Your task to perform on an android device: turn on translation in the chrome app Image 0: 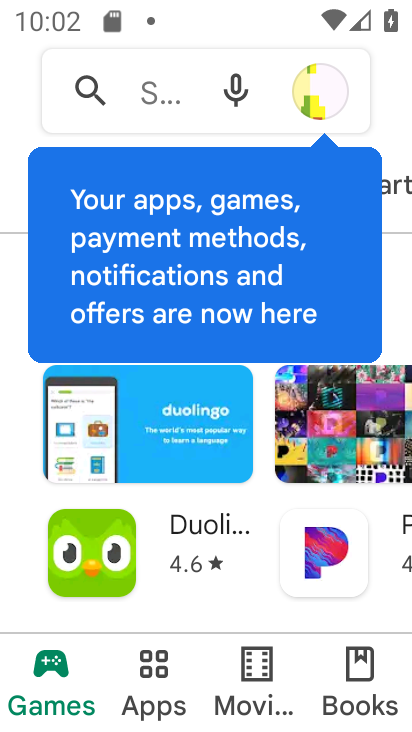
Step 0: press home button
Your task to perform on an android device: turn on translation in the chrome app Image 1: 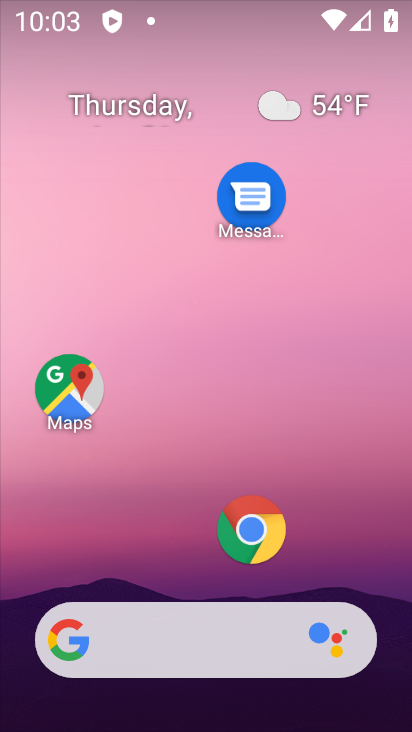
Step 1: click (254, 529)
Your task to perform on an android device: turn on translation in the chrome app Image 2: 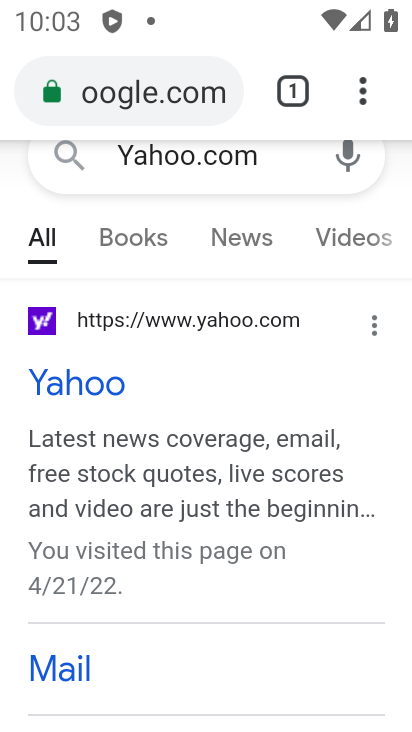
Step 2: click (371, 95)
Your task to perform on an android device: turn on translation in the chrome app Image 3: 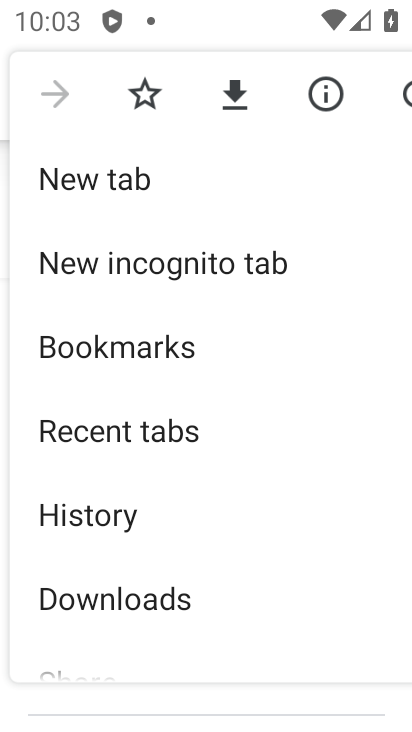
Step 3: drag from (192, 492) to (224, 294)
Your task to perform on an android device: turn on translation in the chrome app Image 4: 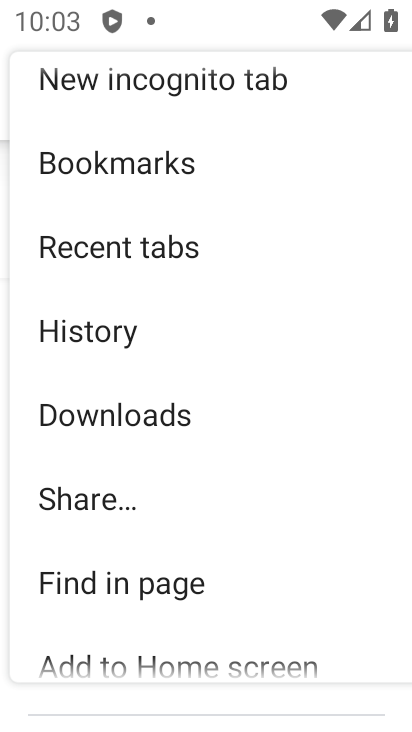
Step 4: drag from (184, 468) to (215, 376)
Your task to perform on an android device: turn on translation in the chrome app Image 5: 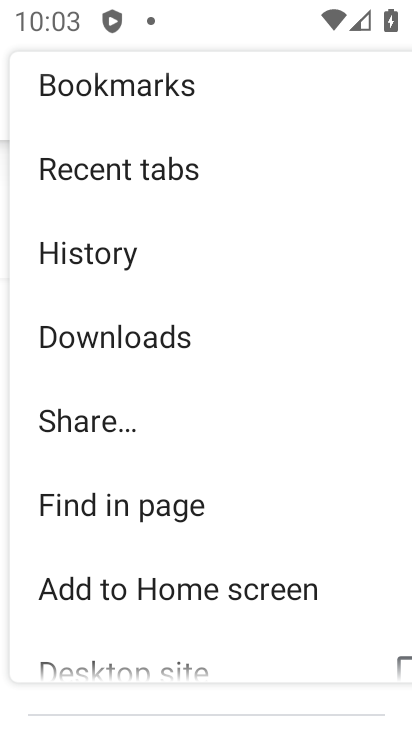
Step 5: drag from (165, 466) to (222, 389)
Your task to perform on an android device: turn on translation in the chrome app Image 6: 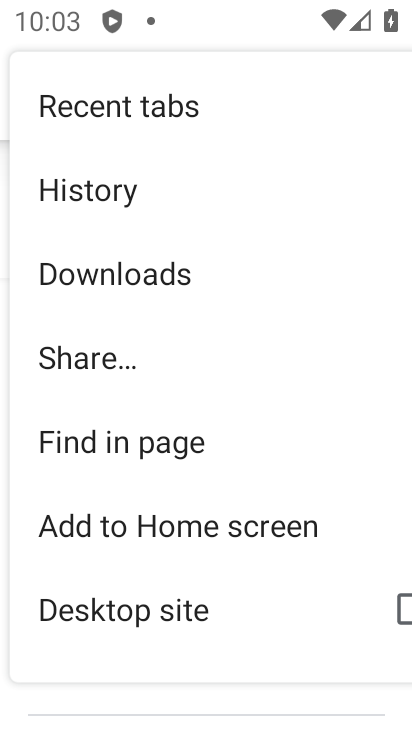
Step 6: drag from (188, 475) to (239, 386)
Your task to perform on an android device: turn on translation in the chrome app Image 7: 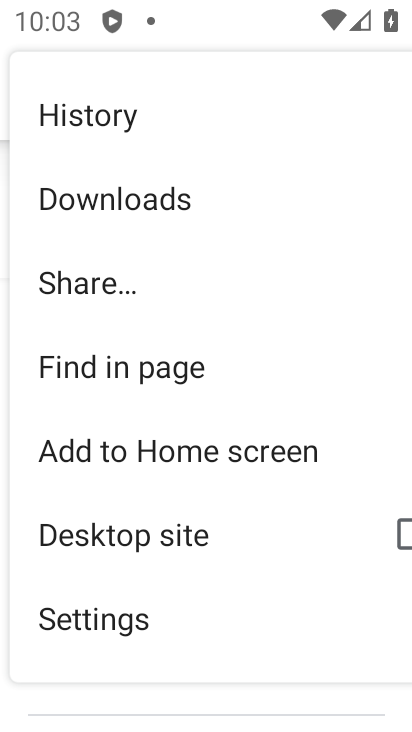
Step 7: click (117, 619)
Your task to perform on an android device: turn on translation in the chrome app Image 8: 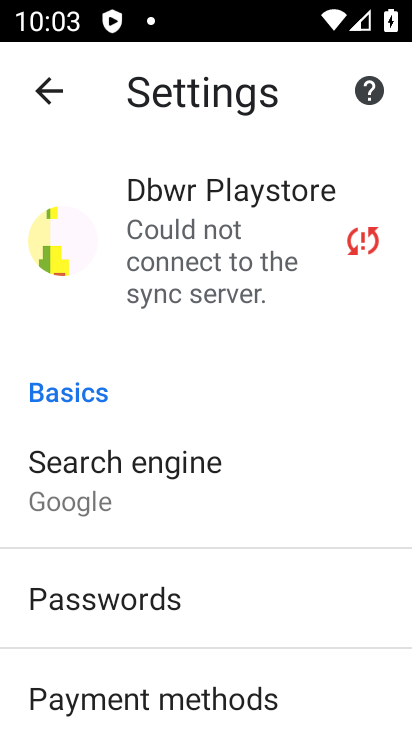
Step 8: drag from (234, 521) to (271, 423)
Your task to perform on an android device: turn on translation in the chrome app Image 9: 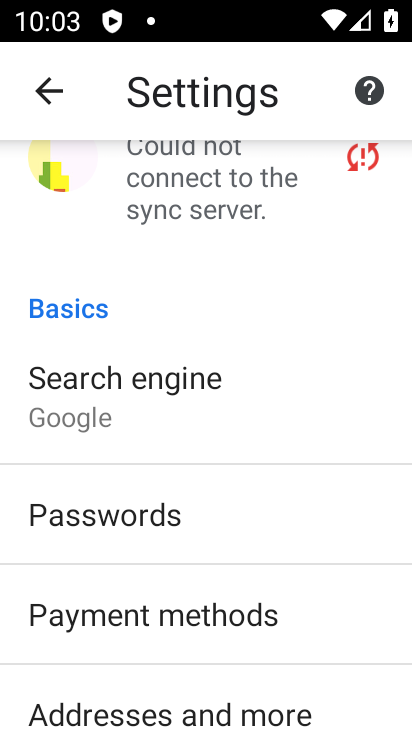
Step 9: drag from (232, 517) to (269, 447)
Your task to perform on an android device: turn on translation in the chrome app Image 10: 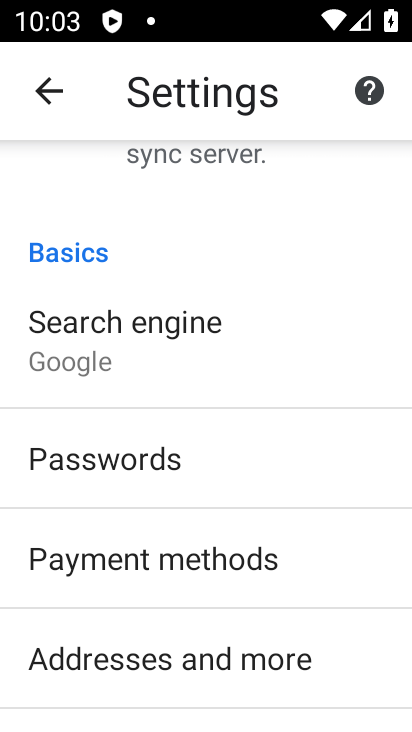
Step 10: drag from (201, 525) to (265, 444)
Your task to perform on an android device: turn on translation in the chrome app Image 11: 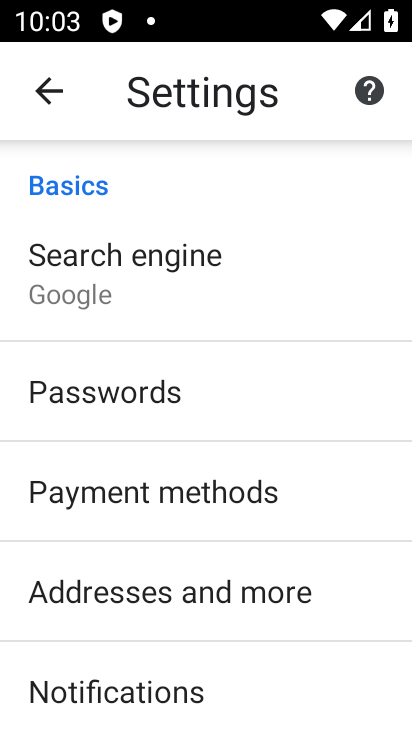
Step 11: drag from (200, 557) to (266, 417)
Your task to perform on an android device: turn on translation in the chrome app Image 12: 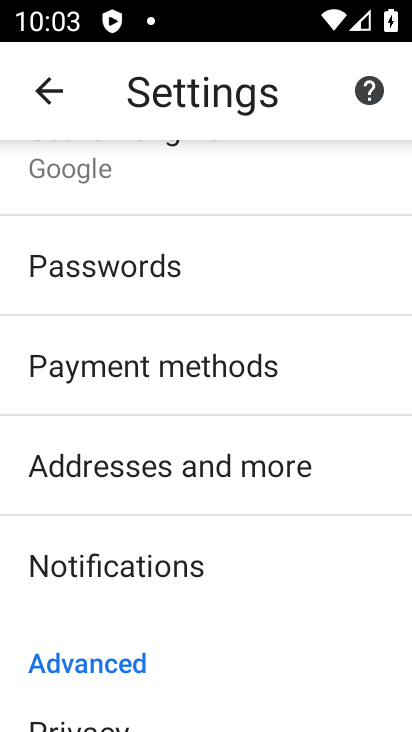
Step 12: drag from (229, 553) to (290, 404)
Your task to perform on an android device: turn on translation in the chrome app Image 13: 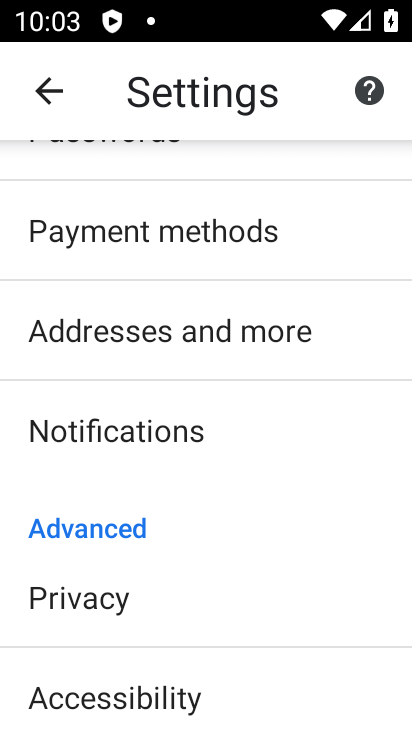
Step 13: drag from (205, 533) to (285, 383)
Your task to perform on an android device: turn on translation in the chrome app Image 14: 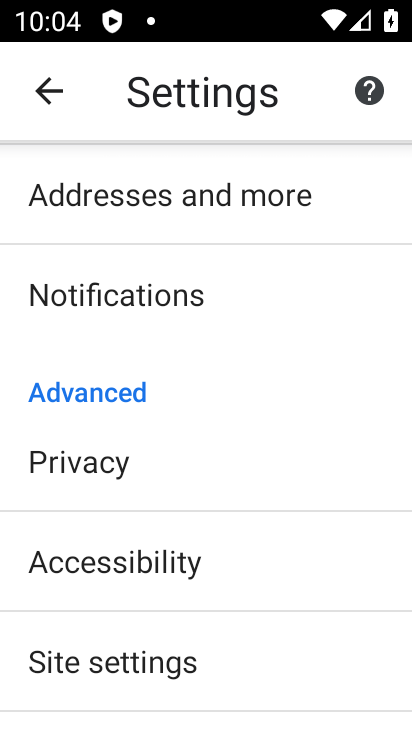
Step 14: drag from (210, 491) to (274, 342)
Your task to perform on an android device: turn on translation in the chrome app Image 15: 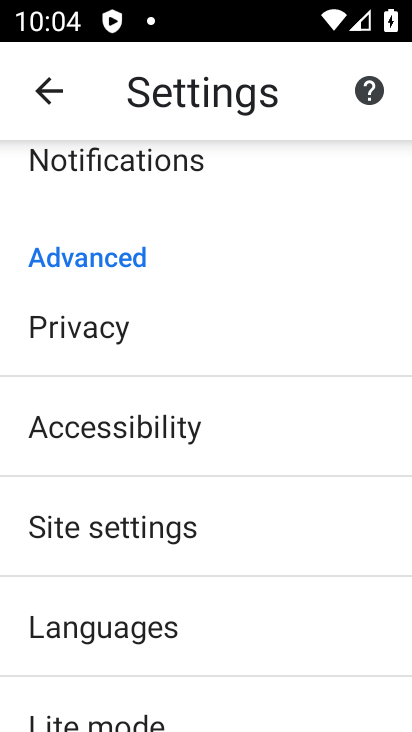
Step 15: click (101, 632)
Your task to perform on an android device: turn on translation in the chrome app Image 16: 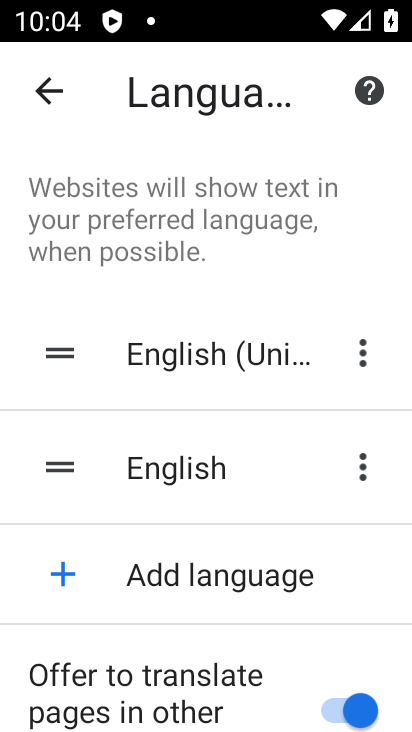
Step 16: task complete